Your task to perform on an android device: Open calendar and show me the second week of next month Image 0: 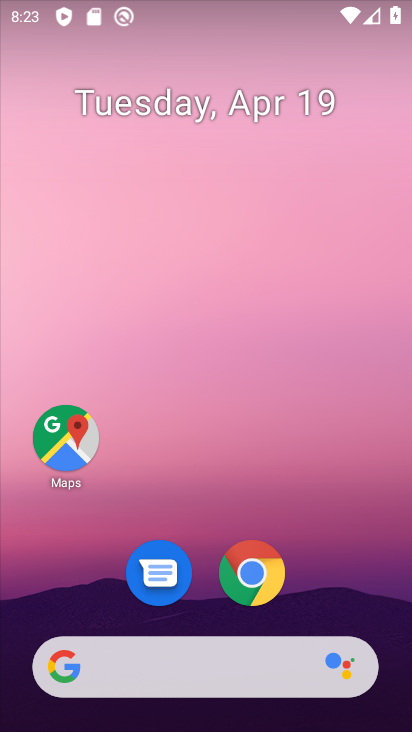
Step 0: drag from (330, 595) to (365, 137)
Your task to perform on an android device: Open calendar and show me the second week of next month Image 1: 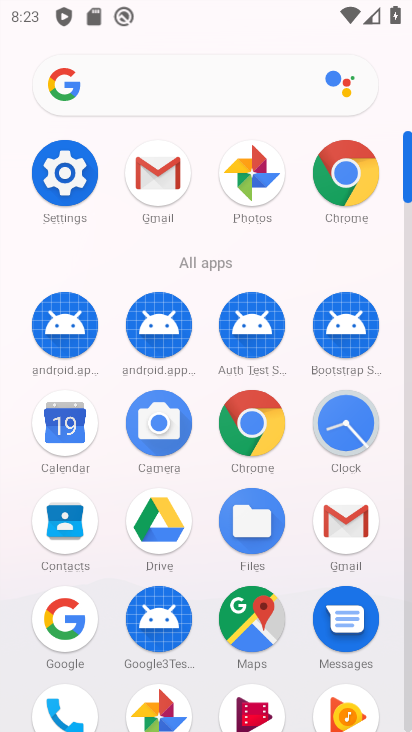
Step 1: click (69, 433)
Your task to perform on an android device: Open calendar and show me the second week of next month Image 2: 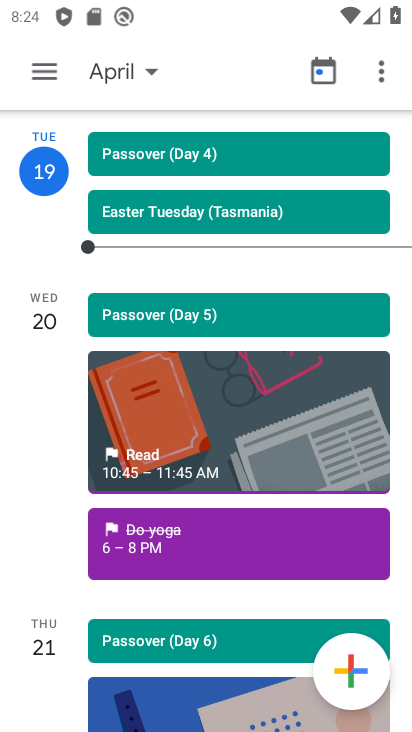
Step 2: click (143, 73)
Your task to perform on an android device: Open calendar and show me the second week of next month Image 3: 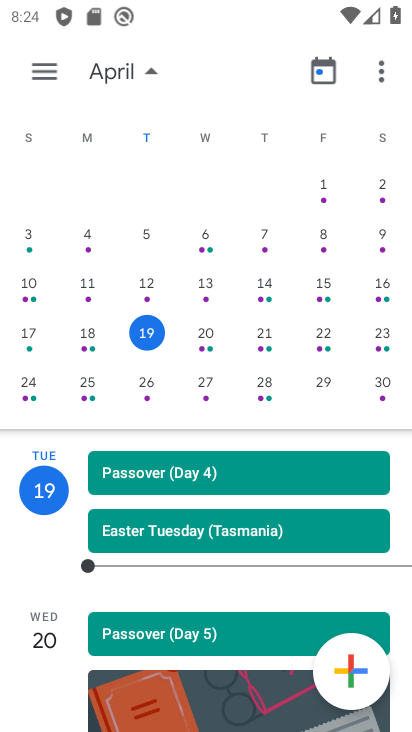
Step 3: drag from (337, 275) to (17, 296)
Your task to perform on an android device: Open calendar and show me the second week of next month Image 4: 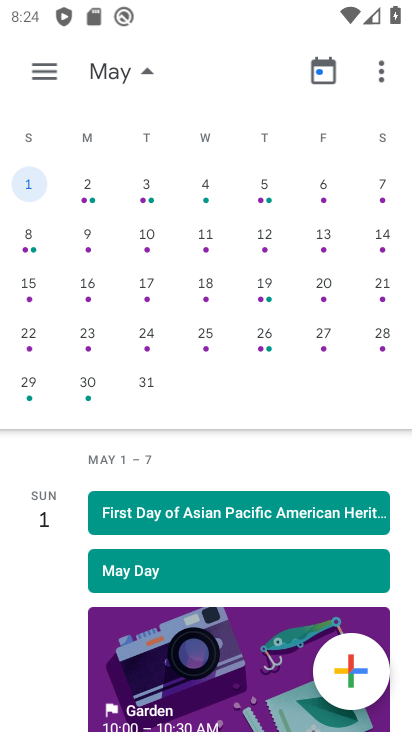
Step 4: click (36, 237)
Your task to perform on an android device: Open calendar and show me the second week of next month Image 5: 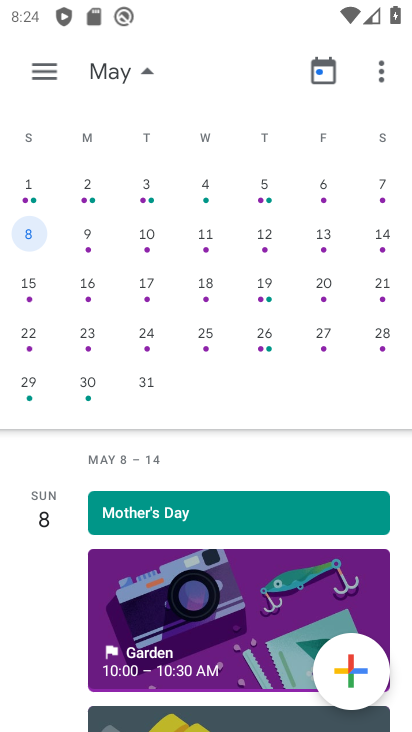
Step 5: click (35, 75)
Your task to perform on an android device: Open calendar and show me the second week of next month Image 6: 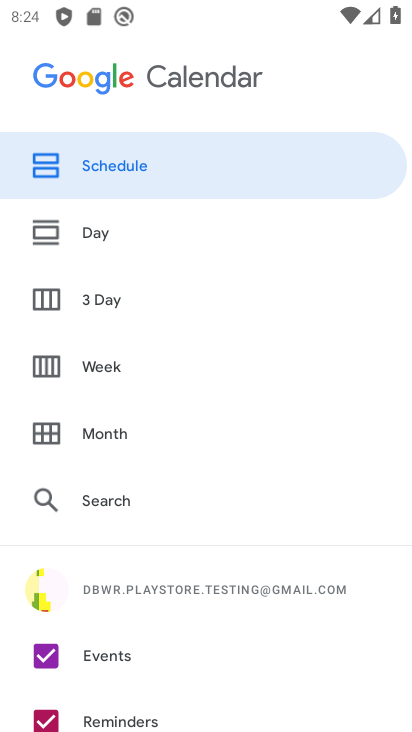
Step 6: click (63, 364)
Your task to perform on an android device: Open calendar and show me the second week of next month Image 7: 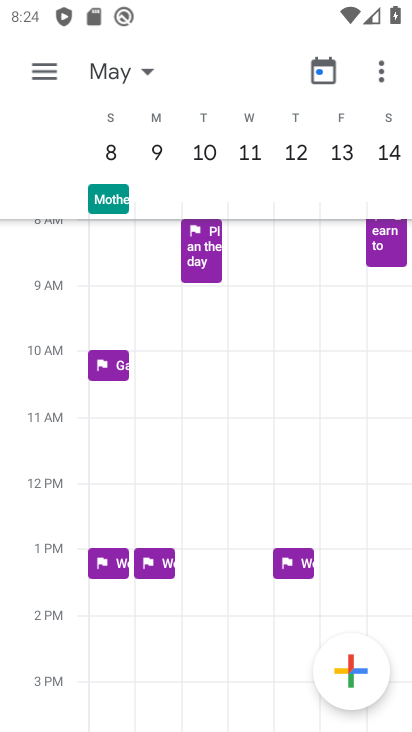
Step 7: task complete